Your task to perform on an android device: Go to calendar. Show me events next week Image 0: 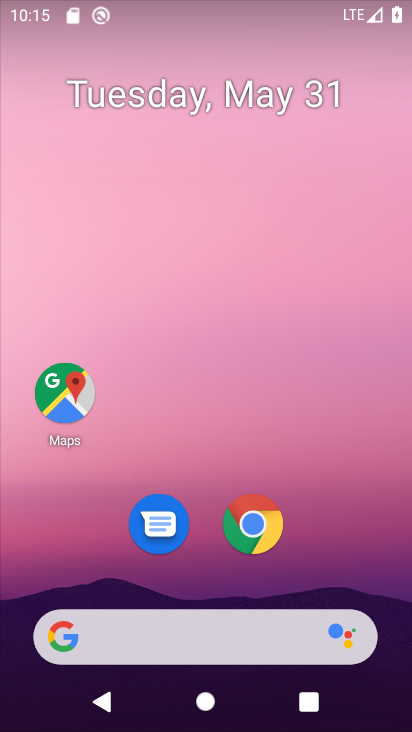
Step 0: drag from (314, 546) to (309, 38)
Your task to perform on an android device: Go to calendar. Show me events next week Image 1: 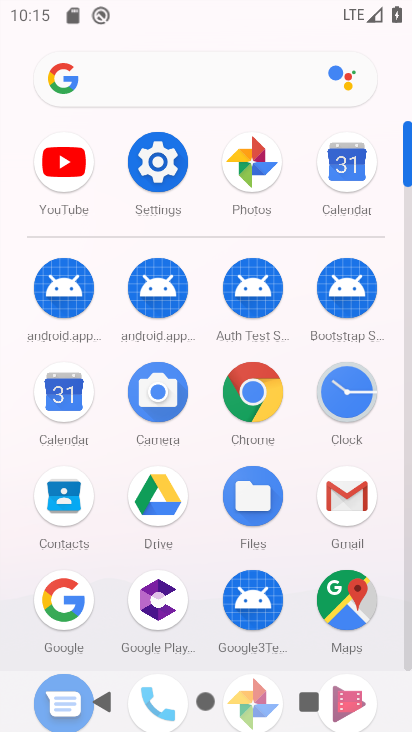
Step 1: click (342, 163)
Your task to perform on an android device: Go to calendar. Show me events next week Image 2: 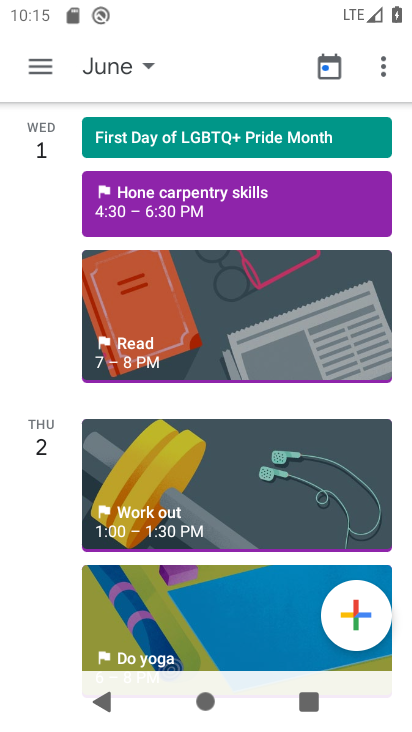
Step 2: click (38, 73)
Your task to perform on an android device: Go to calendar. Show me events next week Image 3: 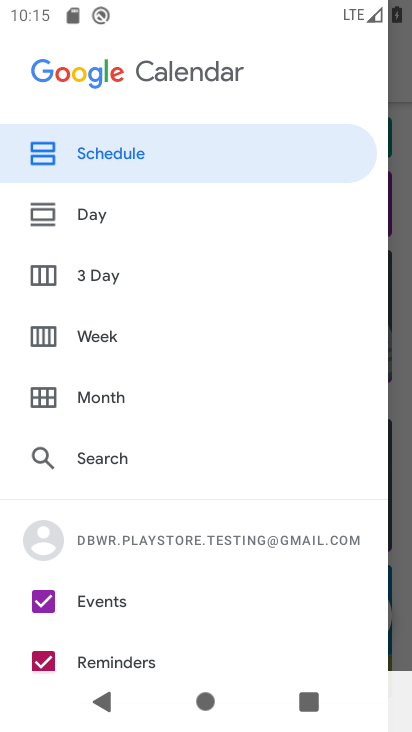
Step 3: click (44, 337)
Your task to perform on an android device: Go to calendar. Show me events next week Image 4: 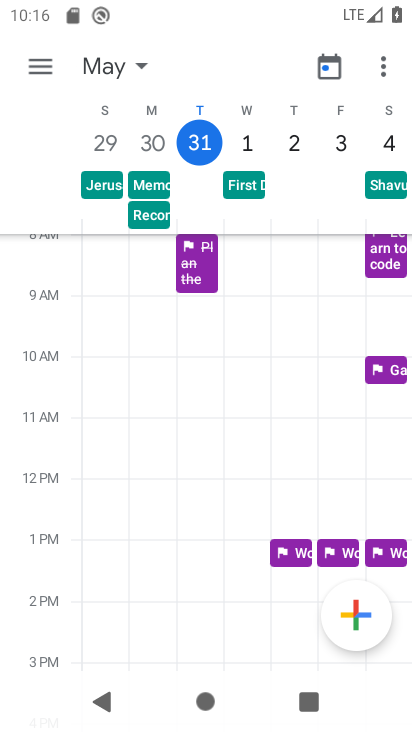
Step 4: task complete